Your task to perform on an android device: set an alarm Image 0: 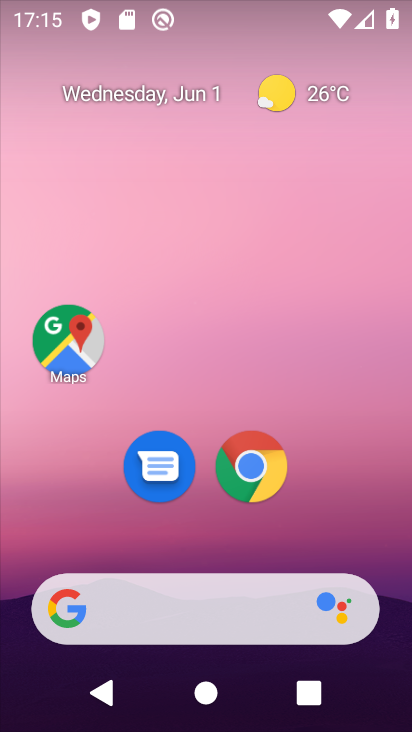
Step 0: drag from (316, 505) to (193, 84)
Your task to perform on an android device: set an alarm Image 1: 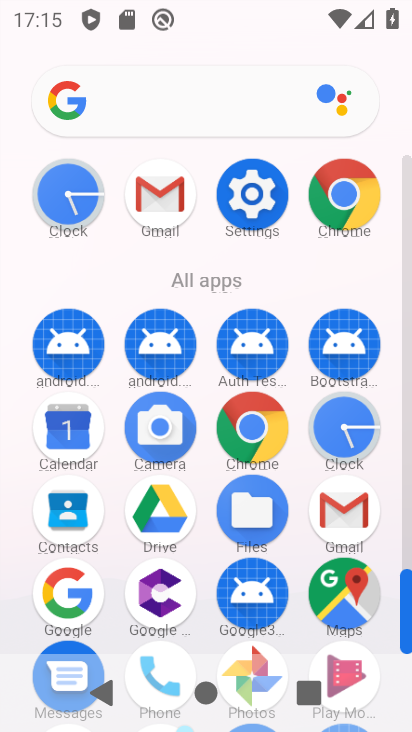
Step 1: click (60, 198)
Your task to perform on an android device: set an alarm Image 2: 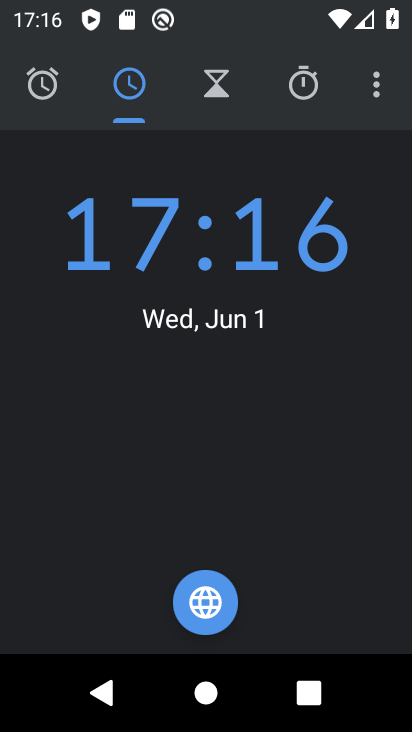
Step 2: click (44, 83)
Your task to perform on an android device: set an alarm Image 3: 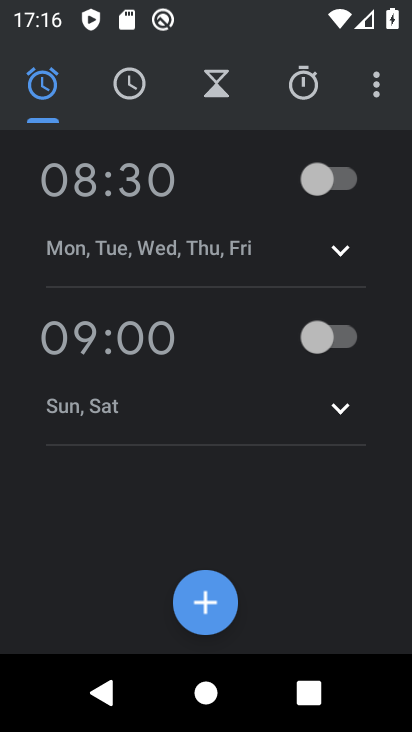
Step 3: click (212, 595)
Your task to perform on an android device: set an alarm Image 4: 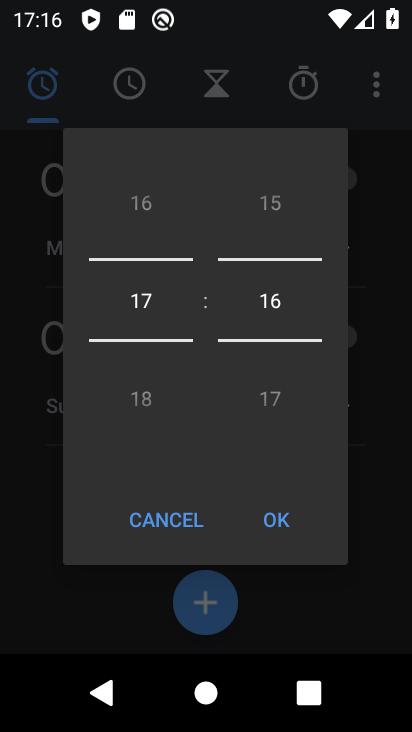
Step 4: click (277, 516)
Your task to perform on an android device: set an alarm Image 5: 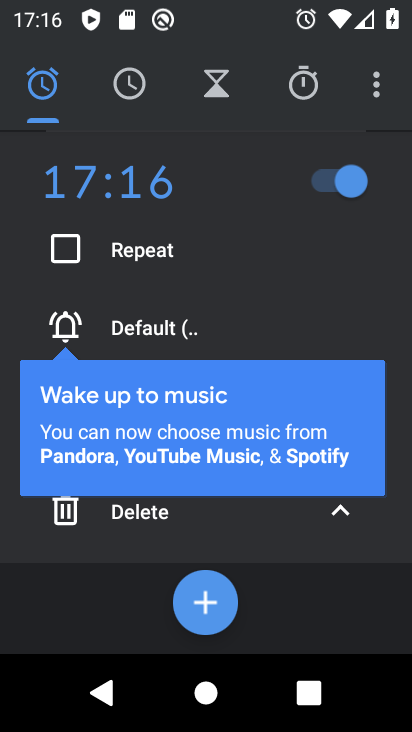
Step 5: task complete